Your task to perform on an android device: open chrome privacy settings Image 0: 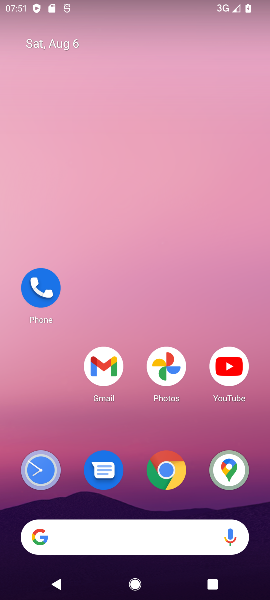
Step 0: drag from (160, 446) to (269, 48)
Your task to perform on an android device: open chrome privacy settings Image 1: 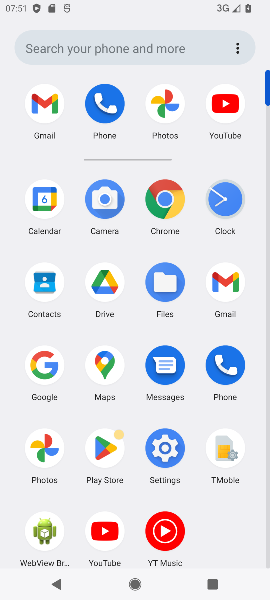
Step 1: click (150, 218)
Your task to perform on an android device: open chrome privacy settings Image 2: 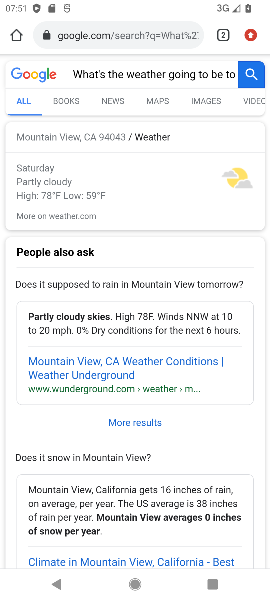
Step 2: drag from (249, 33) to (131, 491)
Your task to perform on an android device: open chrome privacy settings Image 3: 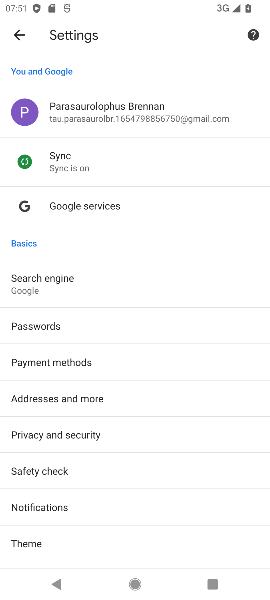
Step 3: click (34, 427)
Your task to perform on an android device: open chrome privacy settings Image 4: 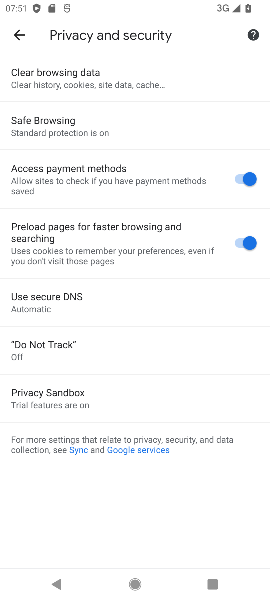
Step 4: task complete